Your task to perform on an android device: Open the calendar and show me this week's events? Image 0: 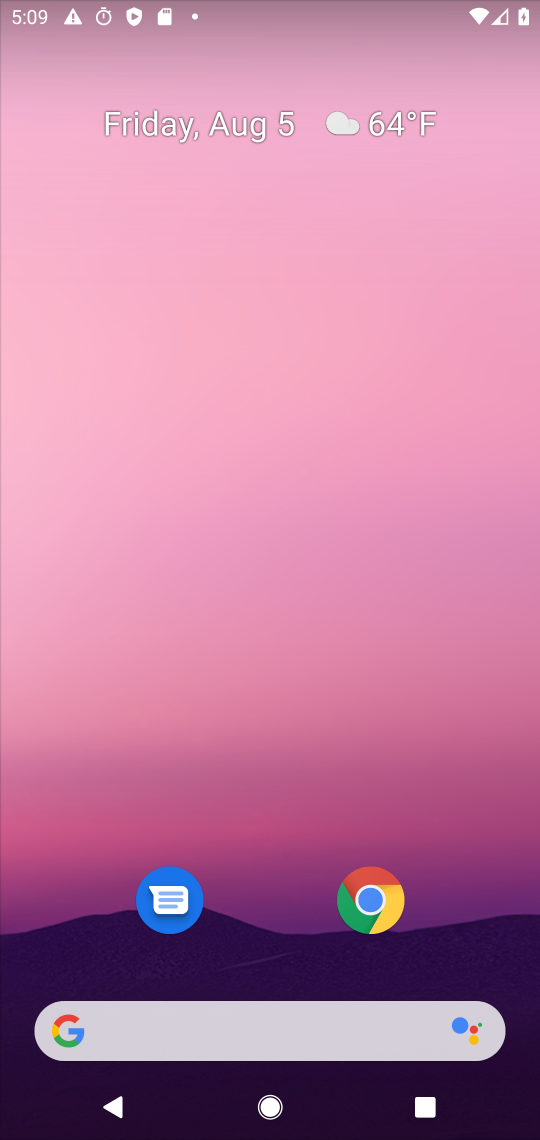
Step 0: drag from (287, 1008) to (217, 240)
Your task to perform on an android device: Open the calendar and show me this week's events? Image 1: 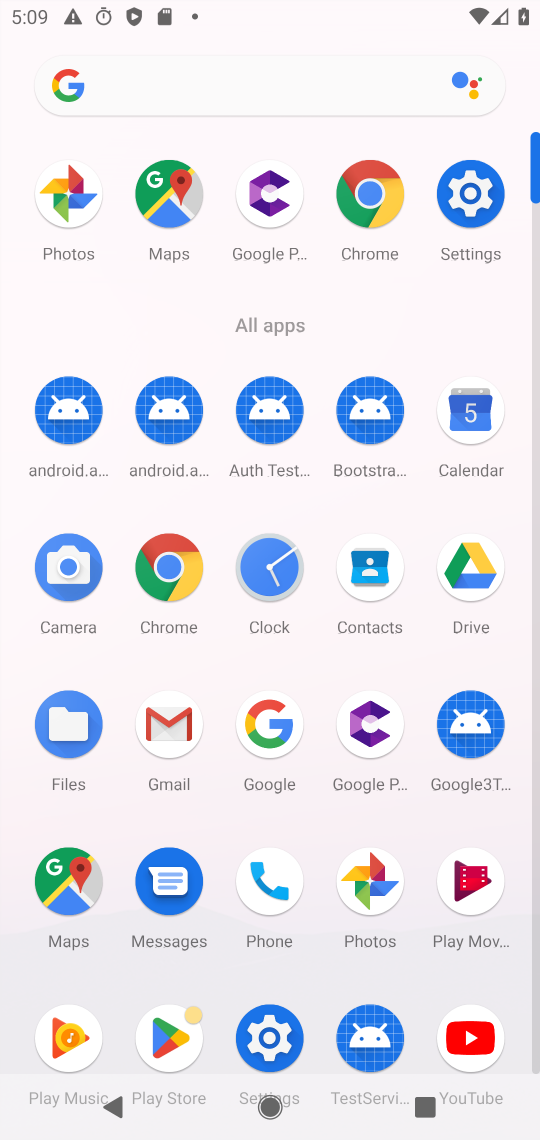
Step 1: click (478, 415)
Your task to perform on an android device: Open the calendar and show me this week's events? Image 2: 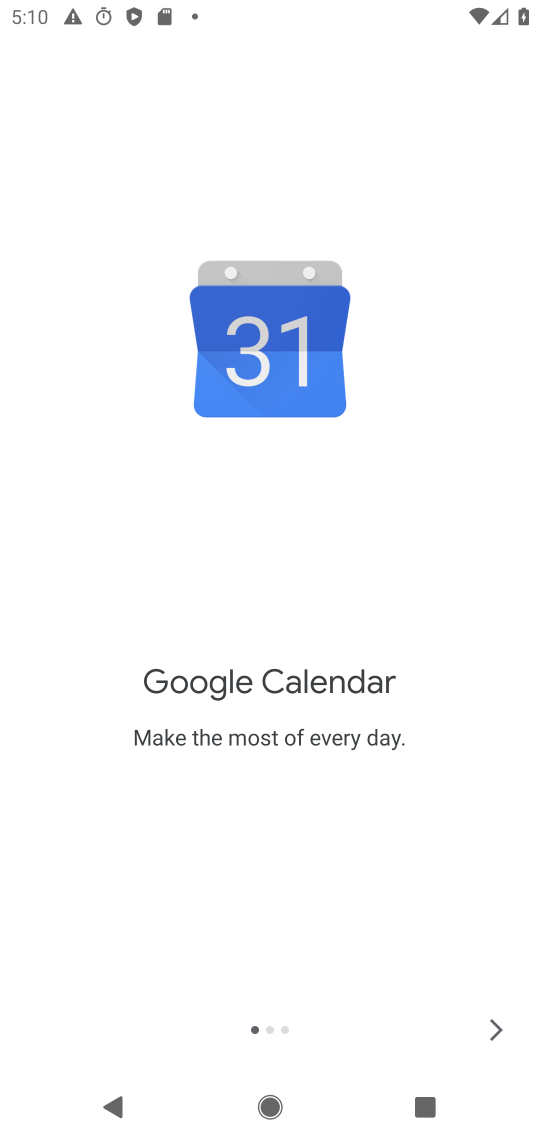
Step 2: click (494, 1036)
Your task to perform on an android device: Open the calendar and show me this week's events? Image 3: 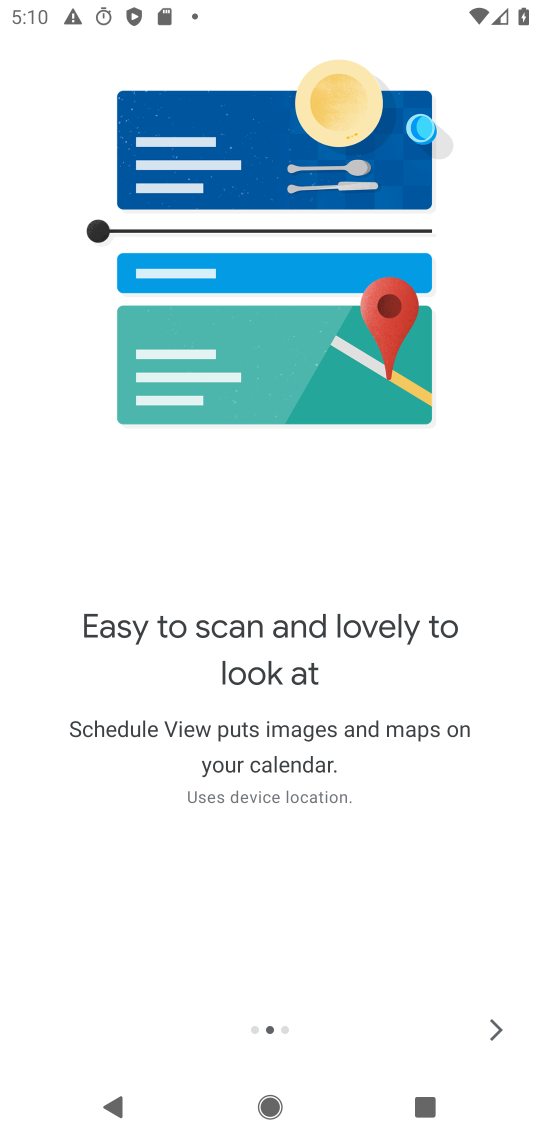
Step 3: click (494, 1036)
Your task to perform on an android device: Open the calendar and show me this week's events? Image 4: 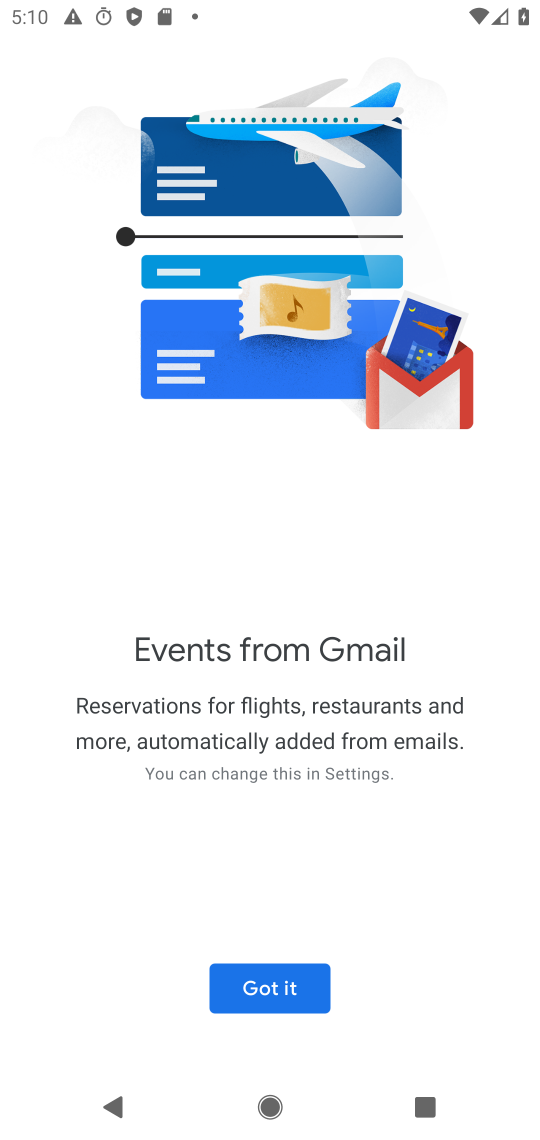
Step 4: click (266, 1005)
Your task to perform on an android device: Open the calendar and show me this week's events? Image 5: 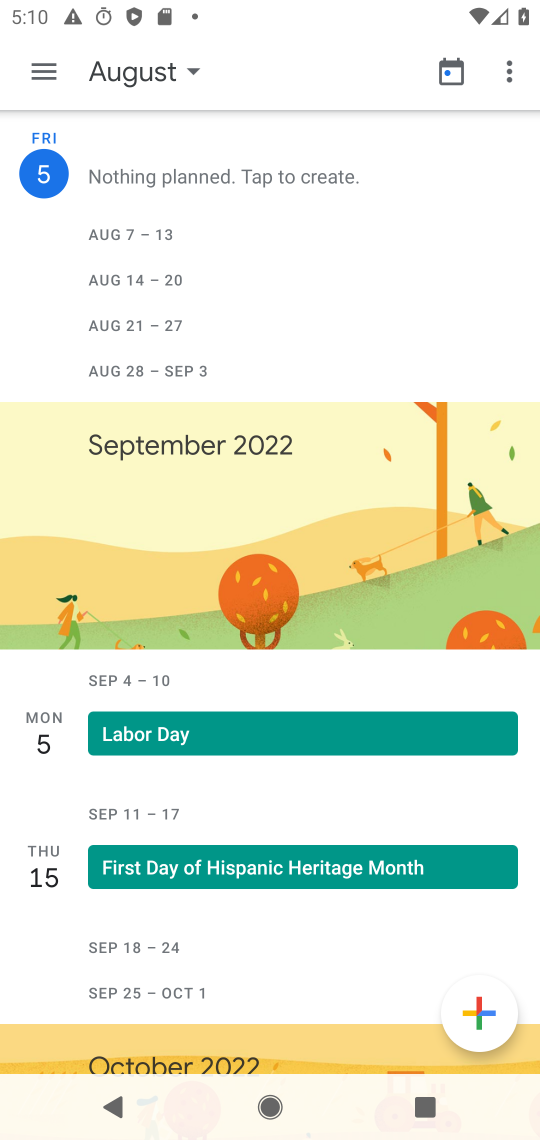
Step 5: click (48, 81)
Your task to perform on an android device: Open the calendar and show me this week's events? Image 6: 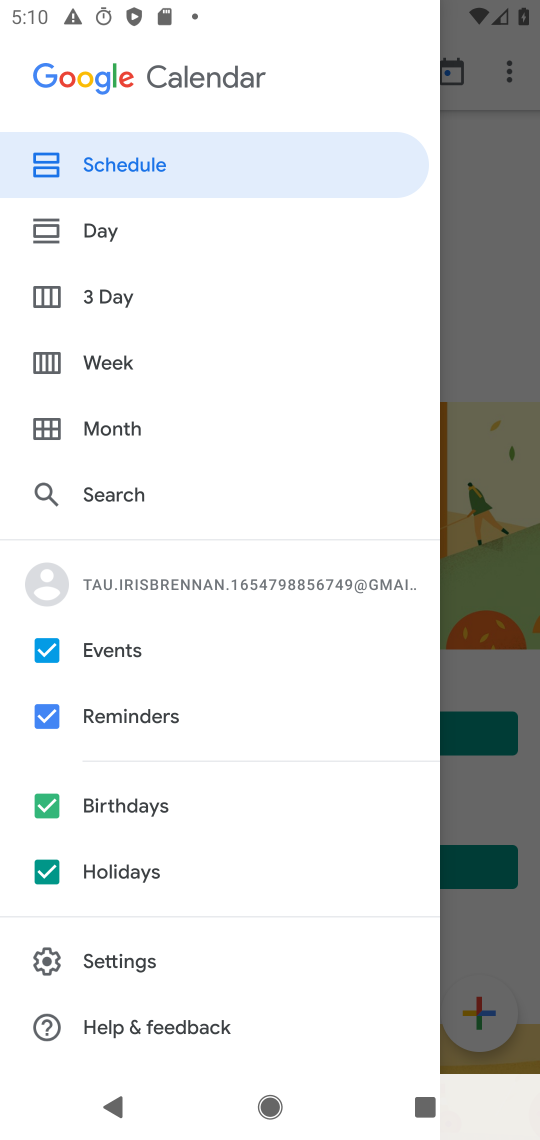
Step 6: click (136, 348)
Your task to perform on an android device: Open the calendar and show me this week's events? Image 7: 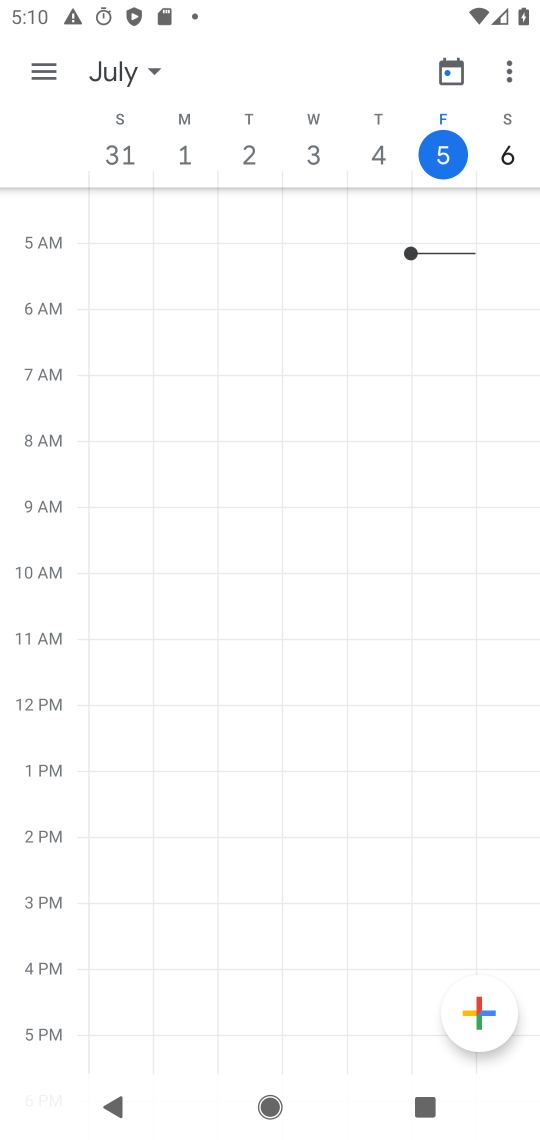
Step 7: task complete